Your task to perform on an android device: toggle notification dots Image 0: 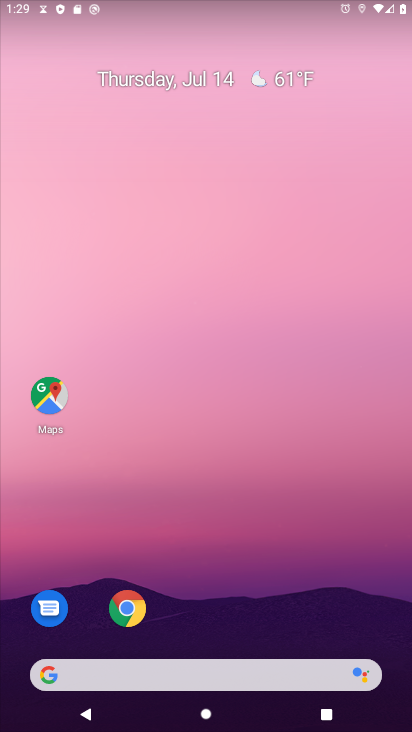
Step 0: drag from (165, 633) to (180, 246)
Your task to perform on an android device: toggle notification dots Image 1: 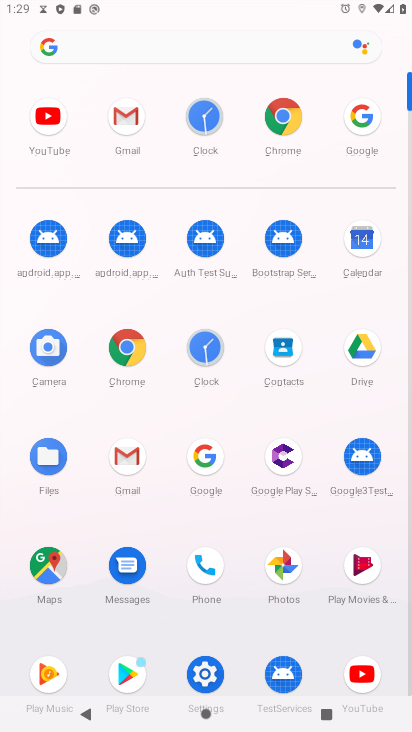
Step 1: click (198, 675)
Your task to perform on an android device: toggle notification dots Image 2: 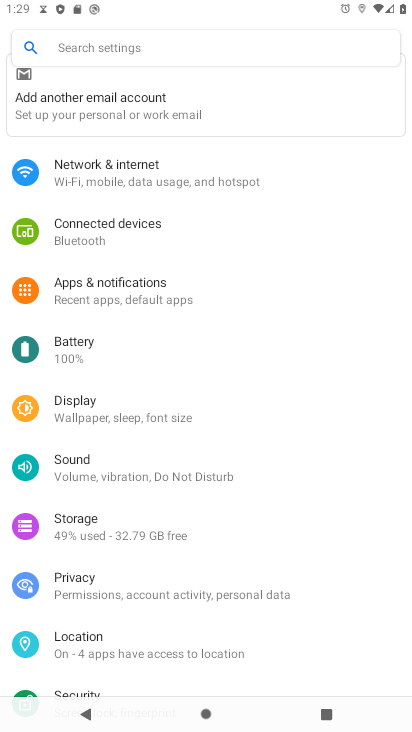
Step 2: click (74, 280)
Your task to perform on an android device: toggle notification dots Image 3: 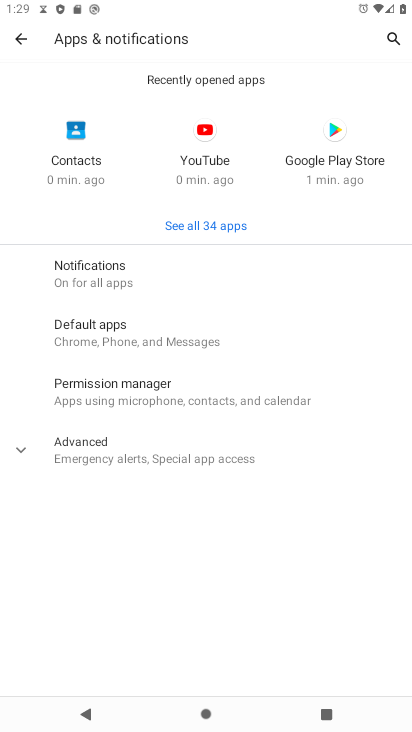
Step 3: click (74, 280)
Your task to perform on an android device: toggle notification dots Image 4: 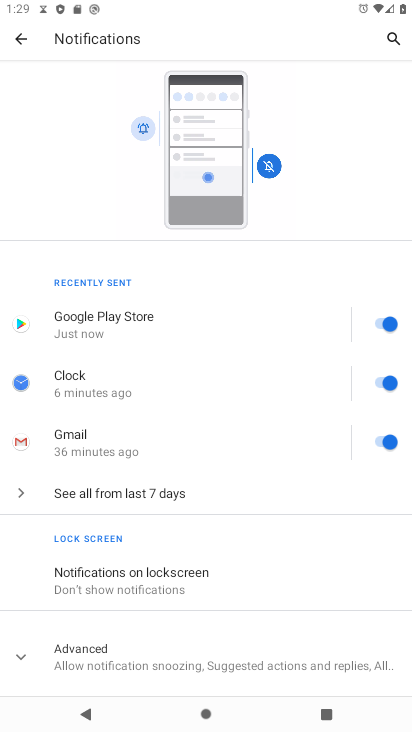
Step 4: click (112, 655)
Your task to perform on an android device: toggle notification dots Image 5: 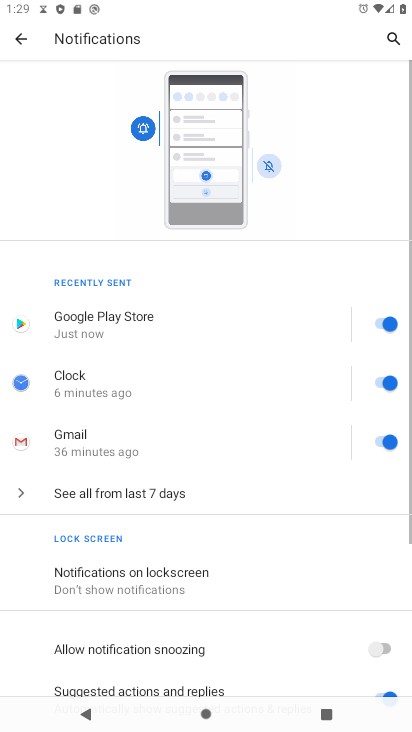
Step 5: drag from (159, 621) to (170, 294)
Your task to perform on an android device: toggle notification dots Image 6: 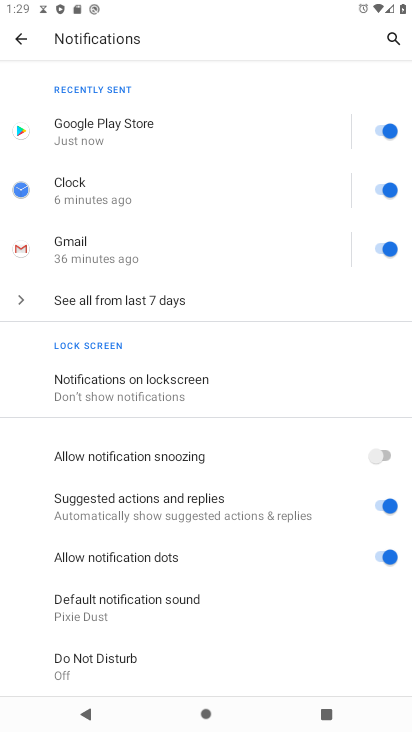
Step 6: click (380, 555)
Your task to perform on an android device: toggle notification dots Image 7: 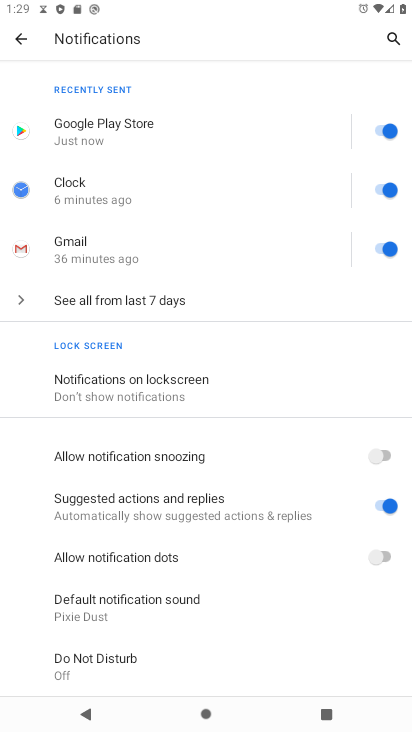
Step 7: task complete